Your task to perform on an android device: open device folders in google photos Image 0: 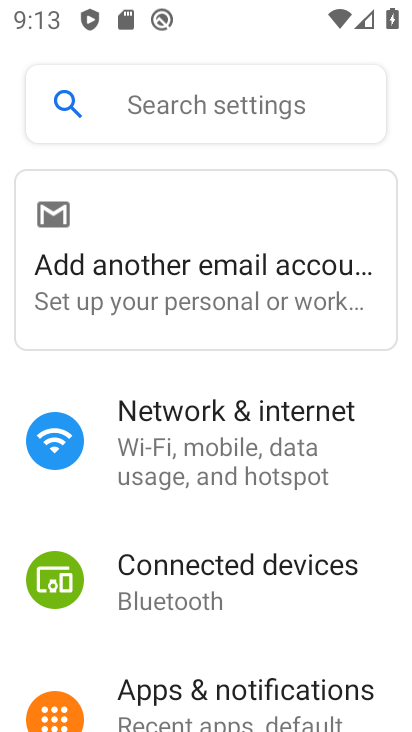
Step 0: press home button
Your task to perform on an android device: open device folders in google photos Image 1: 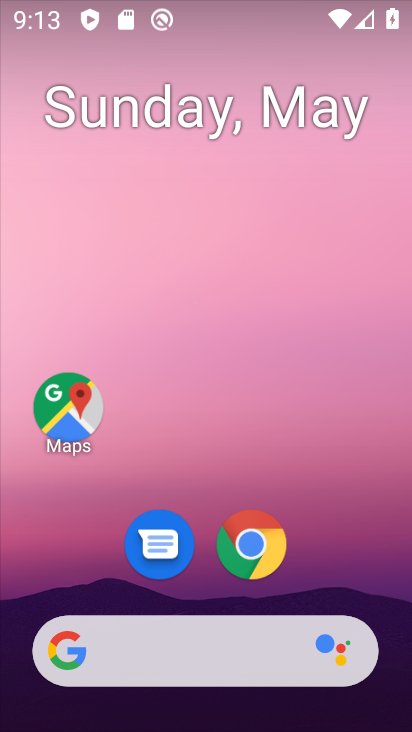
Step 1: drag from (344, 565) to (302, 4)
Your task to perform on an android device: open device folders in google photos Image 2: 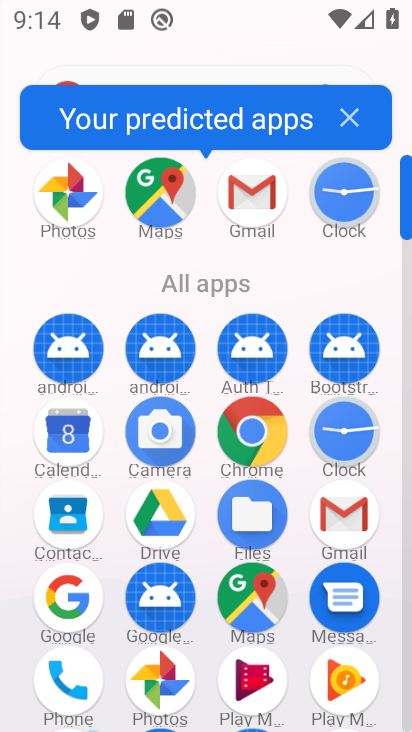
Step 2: click (74, 194)
Your task to perform on an android device: open device folders in google photos Image 3: 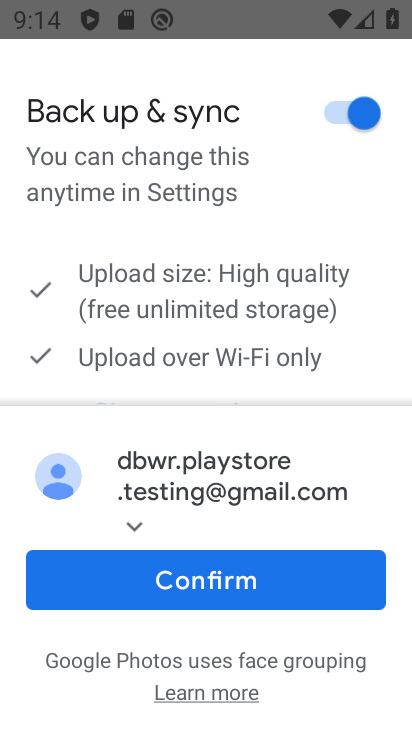
Step 3: click (230, 564)
Your task to perform on an android device: open device folders in google photos Image 4: 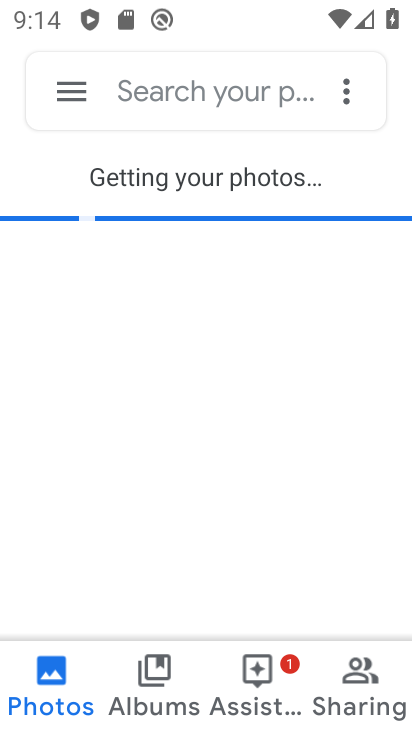
Step 4: click (84, 86)
Your task to perform on an android device: open device folders in google photos Image 5: 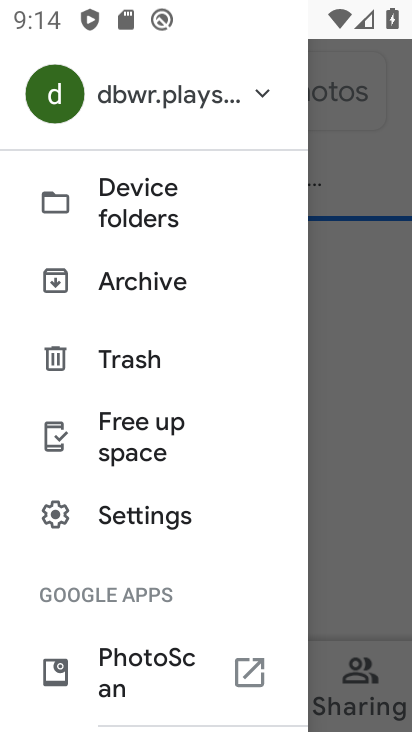
Step 5: click (121, 193)
Your task to perform on an android device: open device folders in google photos Image 6: 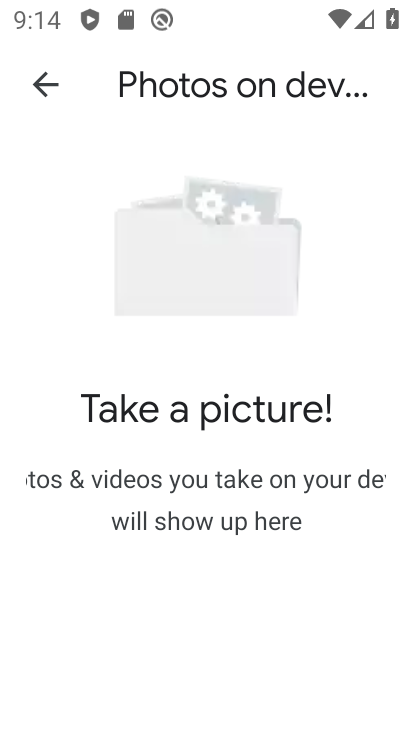
Step 6: task complete